Your task to perform on an android device: all mails in gmail Image 0: 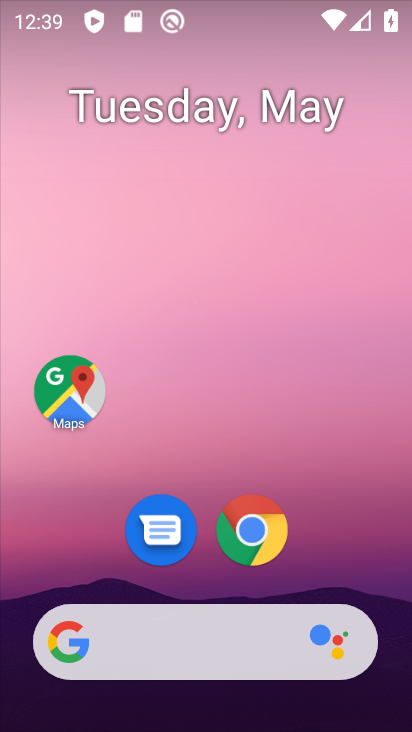
Step 0: drag from (335, 465) to (273, 93)
Your task to perform on an android device: all mails in gmail Image 1: 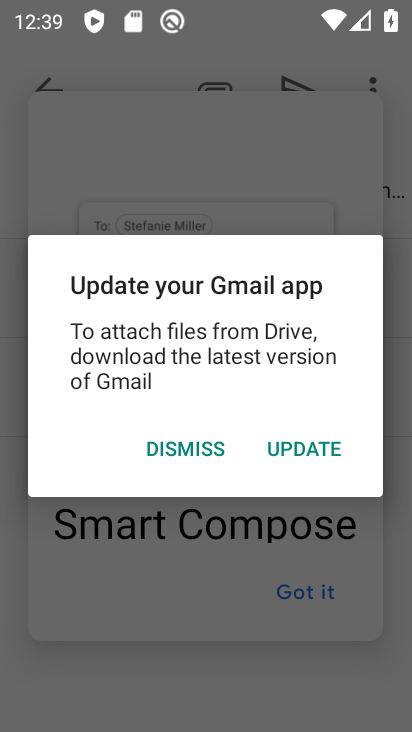
Step 1: press home button
Your task to perform on an android device: all mails in gmail Image 2: 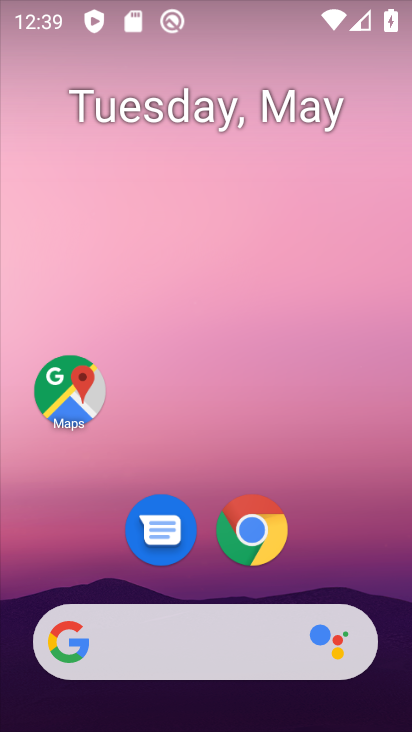
Step 2: drag from (300, 463) to (262, 16)
Your task to perform on an android device: all mails in gmail Image 3: 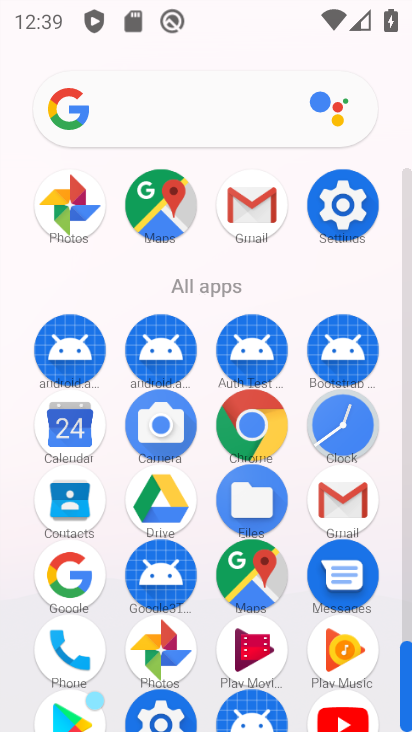
Step 3: click (237, 214)
Your task to perform on an android device: all mails in gmail Image 4: 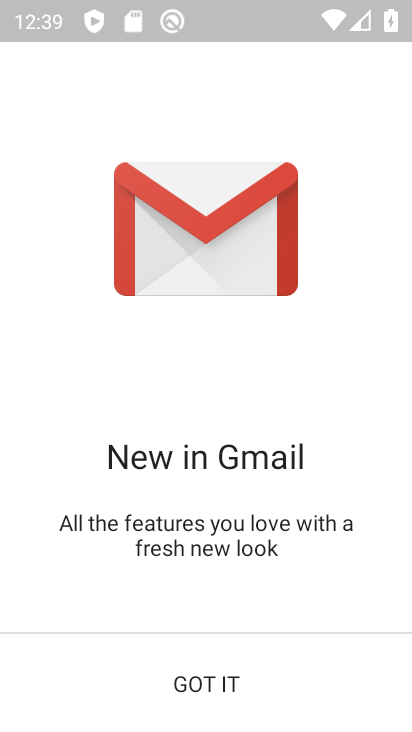
Step 4: click (49, 638)
Your task to perform on an android device: all mails in gmail Image 5: 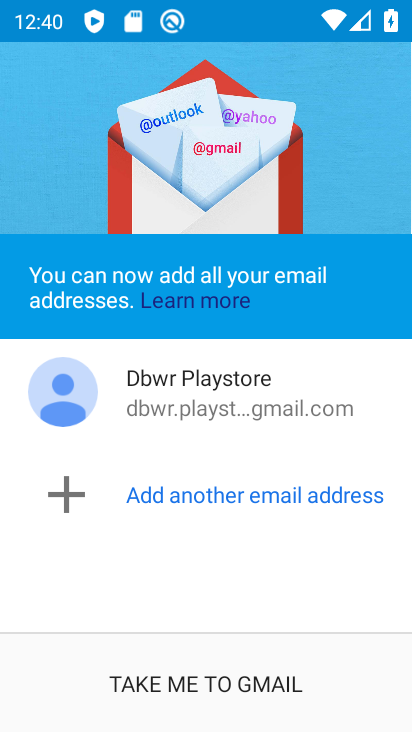
Step 5: click (346, 678)
Your task to perform on an android device: all mails in gmail Image 6: 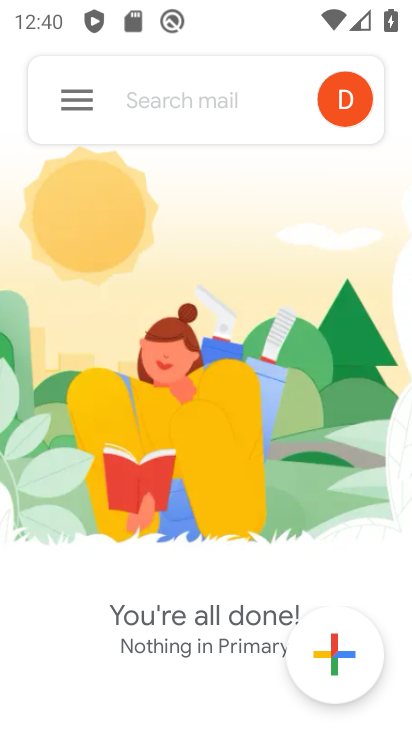
Step 6: click (82, 115)
Your task to perform on an android device: all mails in gmail Image 7: 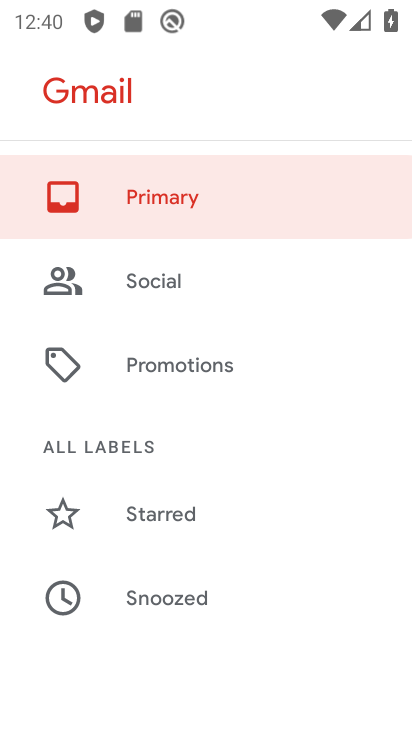
Step 7: drag from (236, 557) to (233, 227)
Your task to perform on an android device: all mails in gmail Image 8: 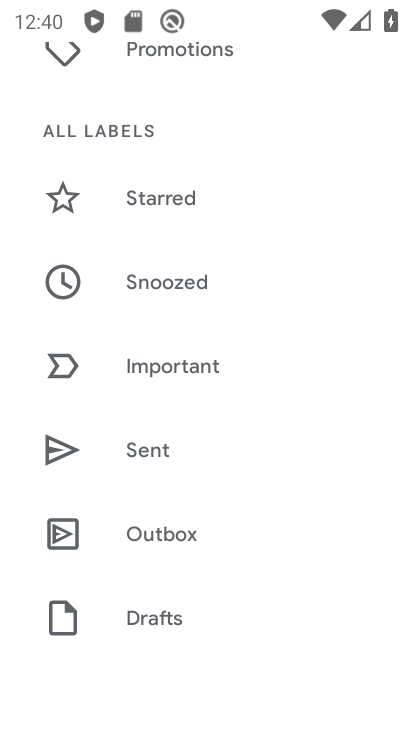
Step 8: drag from (205, 624) to (211, 169)
Your task to perform on an android device: all mails in gmail Image 9: 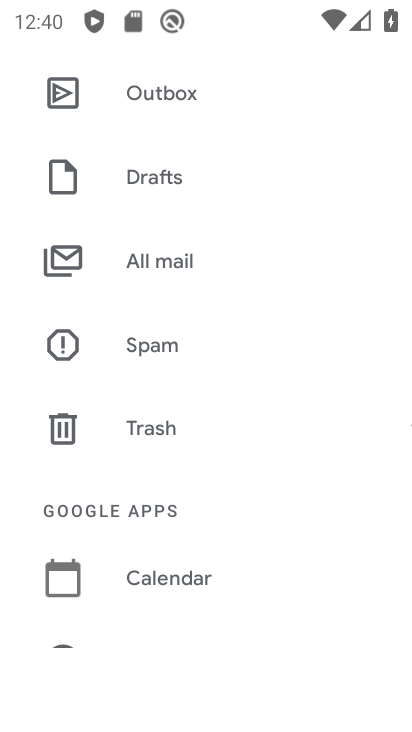
Step 9: click (157, 271)
Your task to perform on an android device: all mails in gmail Image 10: 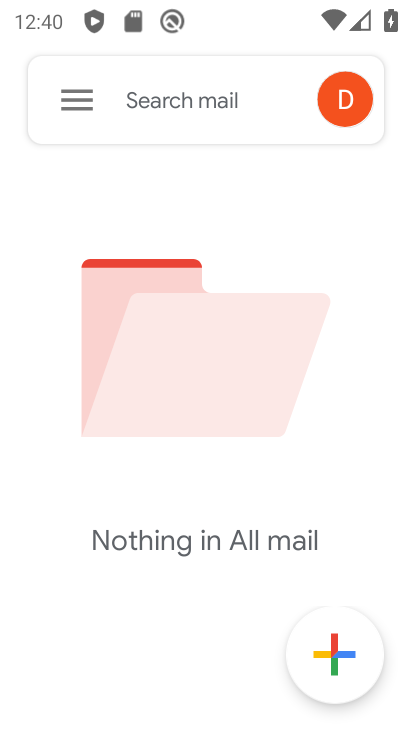
Step 10: task complete